Your task to perform on an android device: turn on priority inbox in the gmail app Image 0: 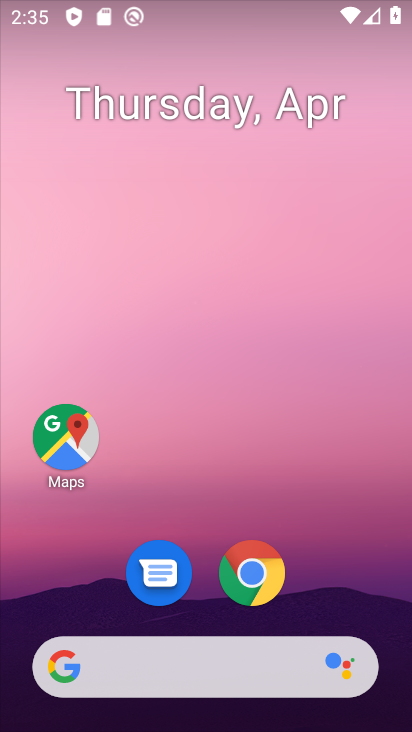
Step 0: drag from (363, 602) to (274, 33)
Your task to perform on an android device: turn on priority inbox in the gmail app Image 1: 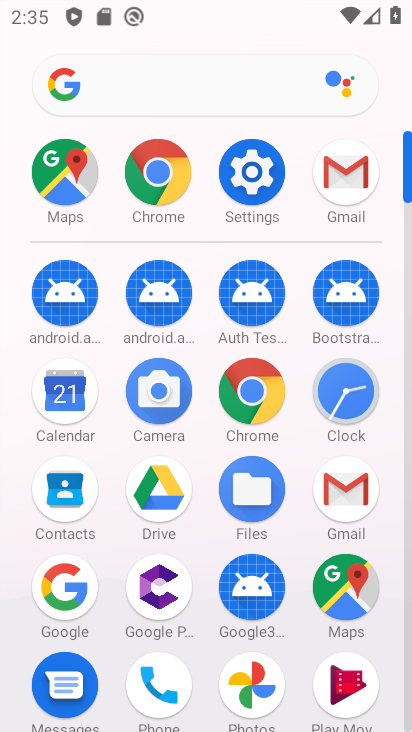
Step 1: click (331, 491)
Your task to perform on an android device: turn on priority inbox in the gmail app Image 2: 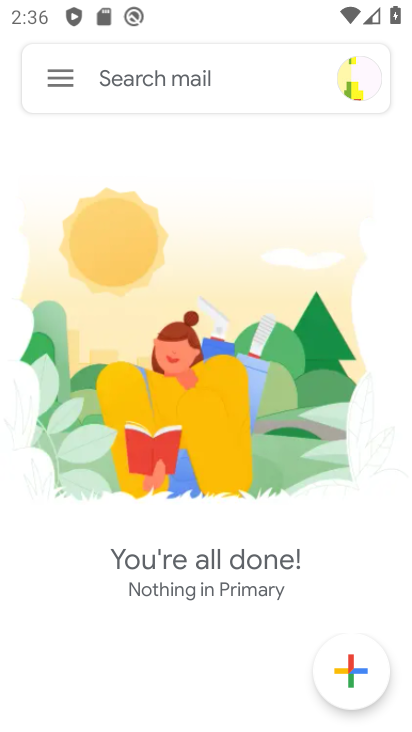
Step 2: click (49, 72)
Your task to perform on an android device: turn on priority inbox in the gmail app Image 3: 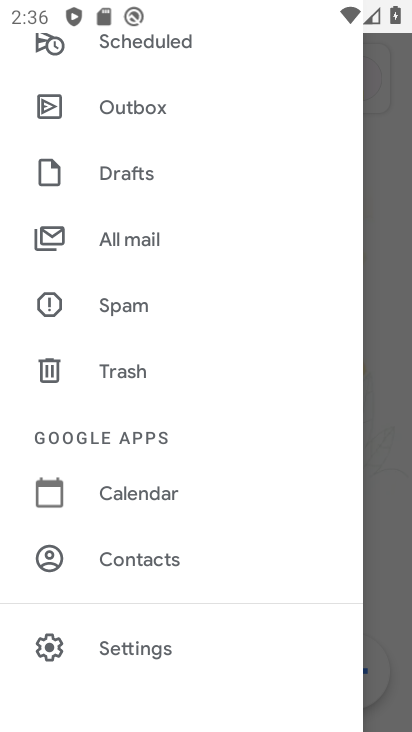
Step 3: click (189, 648)
Your task to perform on an android device: turn on priority inbox in the gmail app Image 4: 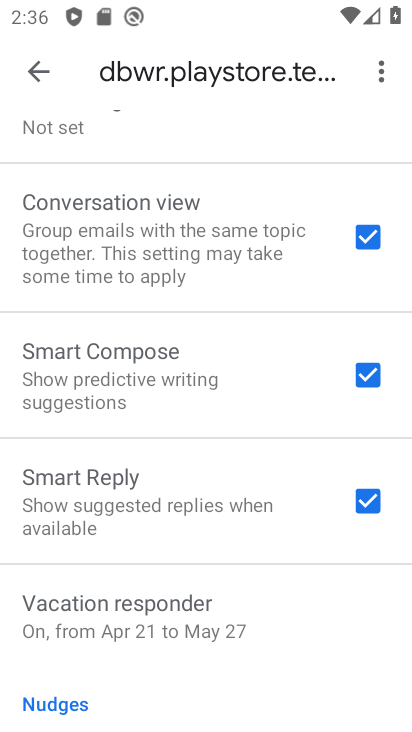
Step 4: drag from (186, 205) to (189, 585)
Your task to perform on an android device: turn on priority inbox in the gmail app Image 5: 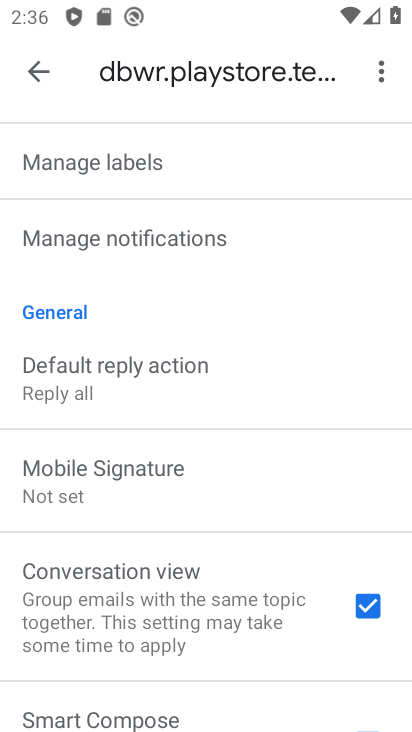
Step 5: drag from (205, 212) to (191, 662)
Your task to perform on an android device: turn on priority inbox in the gmail app Image 6: 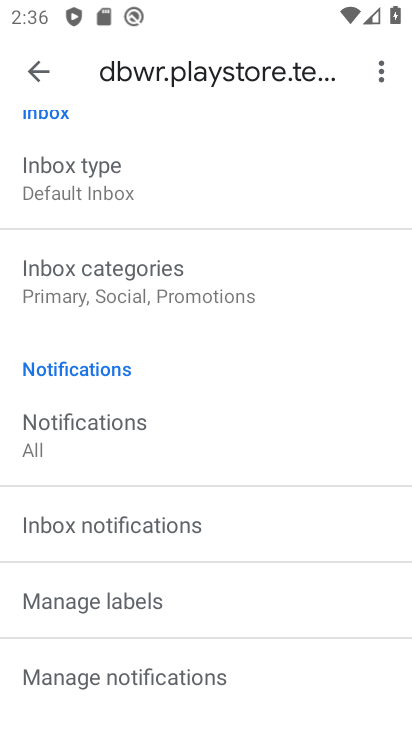
Step 6: drag from (199, 225) to (174, 579)
Your task to perform on an android device: turn on priority inbox in the gmail app Image 7: 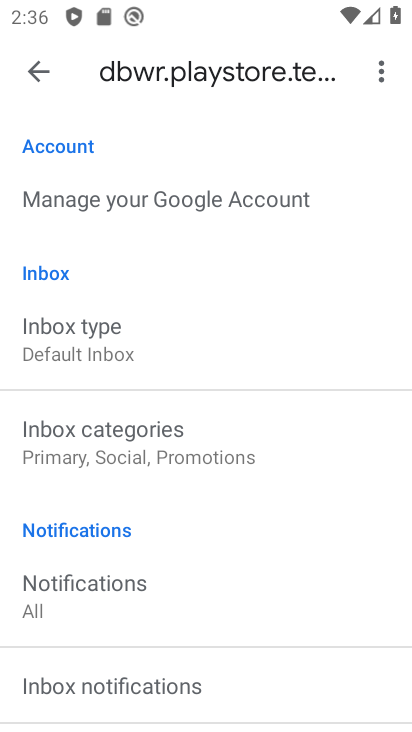
Step 7: click (155, 350)
Your task to perform on an android device: turn on priority inbox in the gmail app Image 8: 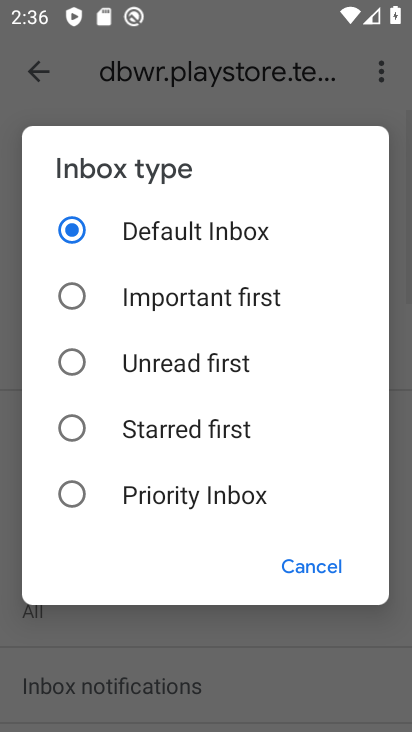
Step 8: click (189, 498)
Your task to perform on an android device: turn on priority inbox in the gmail app Image 9: 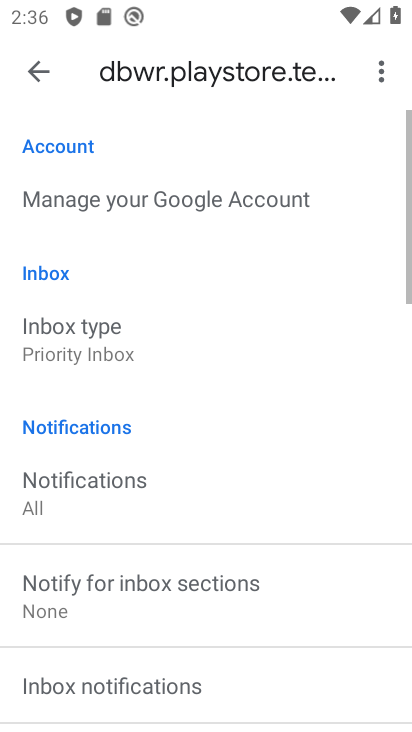
Step 9: task complete